Your task to perform on an android device: Go to CNN.com Image 0: 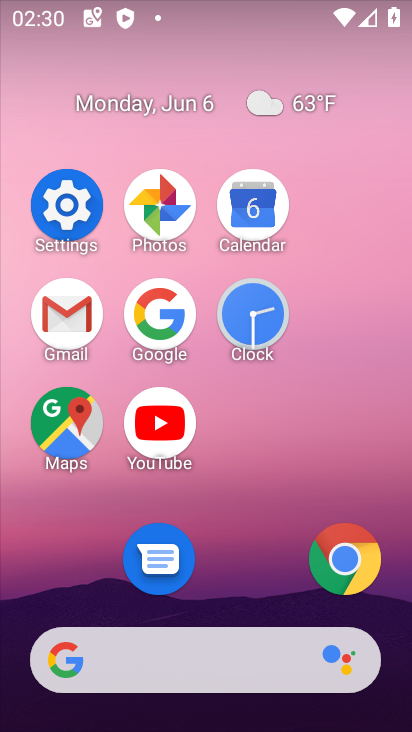
Step 0: click (159, 305)
Your task to perform on an android device: Go to CNN.com Image 1: 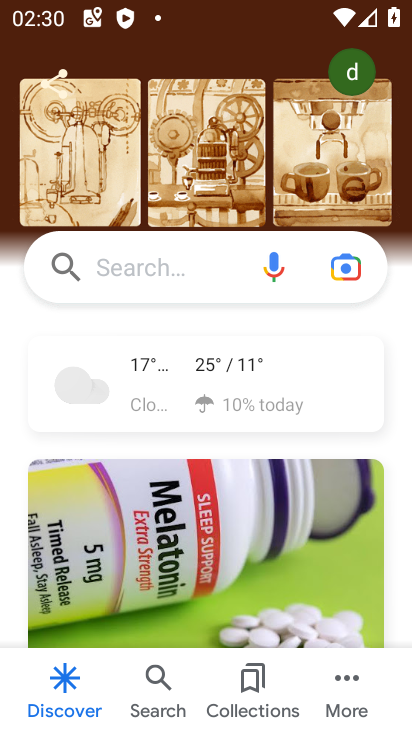
Step 1: click (157, 274)
Your task to perform on an android device: Go to CNN.com Image 2: 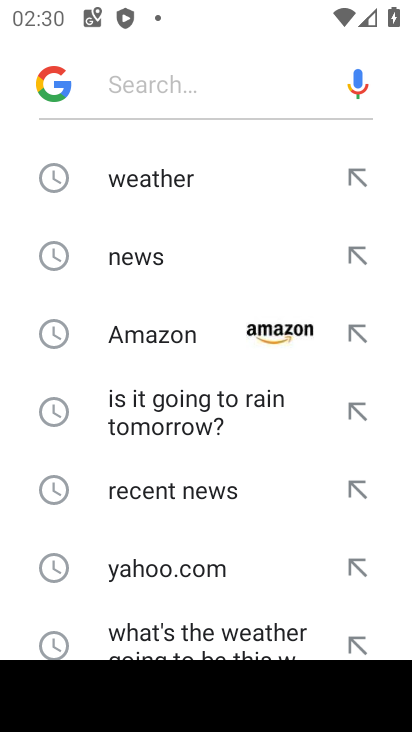
Step 2: drag from (170, 463) to (204, 141)
Your task to perform on an android device: Go to CNN.com Image 3: 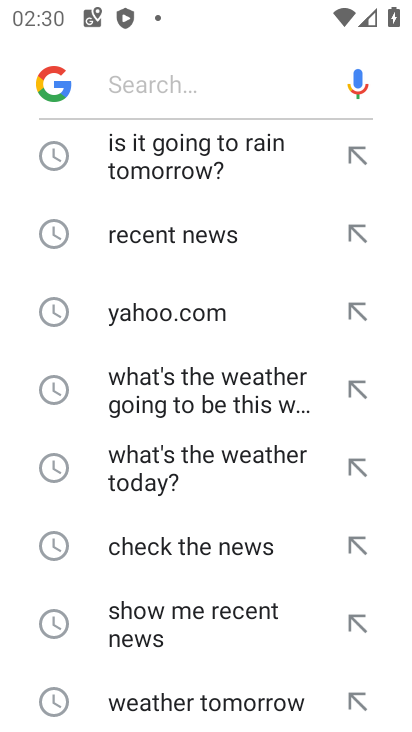
Step 3: drag from (130, 630) to (204, 215)
Your task to perform on an android device: Go to CNN.com Image 4: 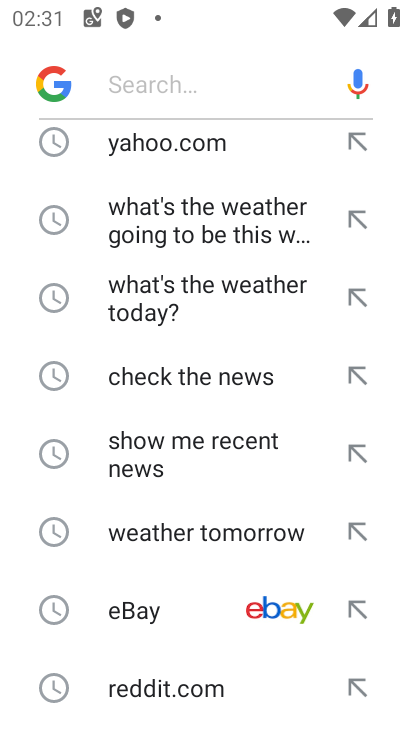
Step 4: drag from (128, 598) to (182, 214)
Your task to perform on an android device: Go to CNN.com Image 5: 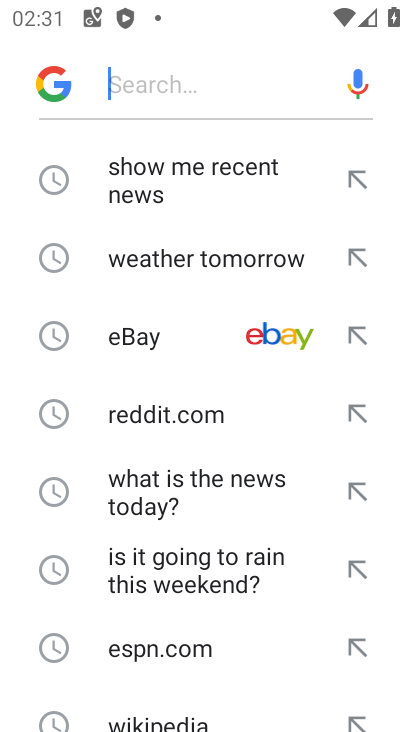
Step 5: drag from (147, 685) to (226, 200)
Your task to perform on an android device: Go to CNN.com Image 6: 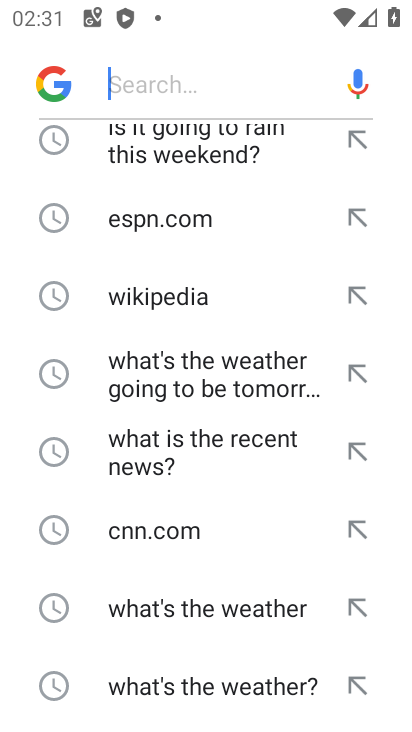
Step 6: drag from (141, 580) to (199, 249)
Your task to perform on an android device: Go to CNN.com Image 7: 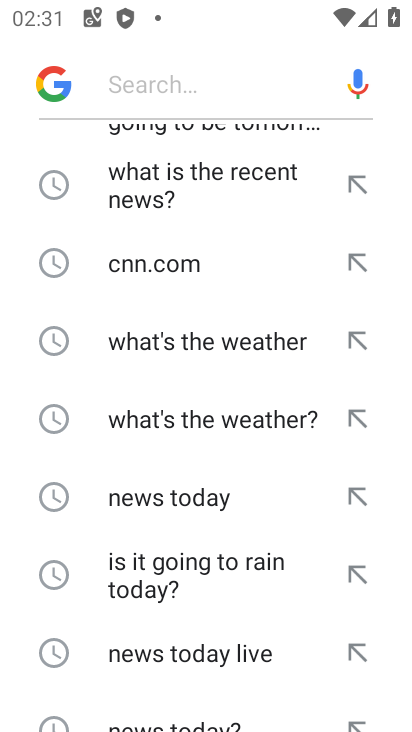
Step 7: click (162, 267)
Your task to perform on an android device: Go to CNN.com Image 8: 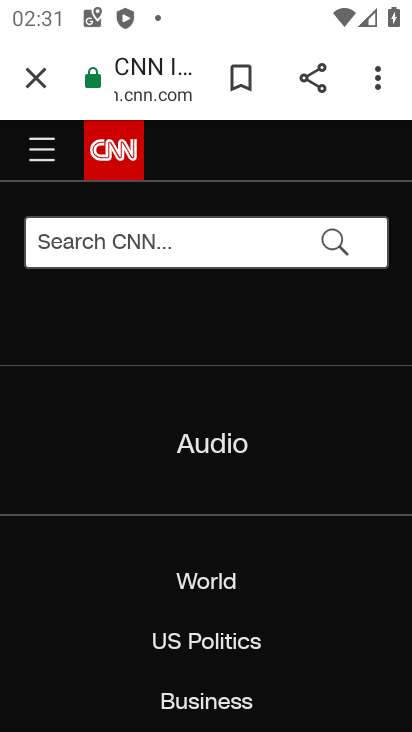
Step 8: task complete